Your task to perform on an android device: open app "Upside-Cash back on gas & food" (install if not already installed) Image 0: 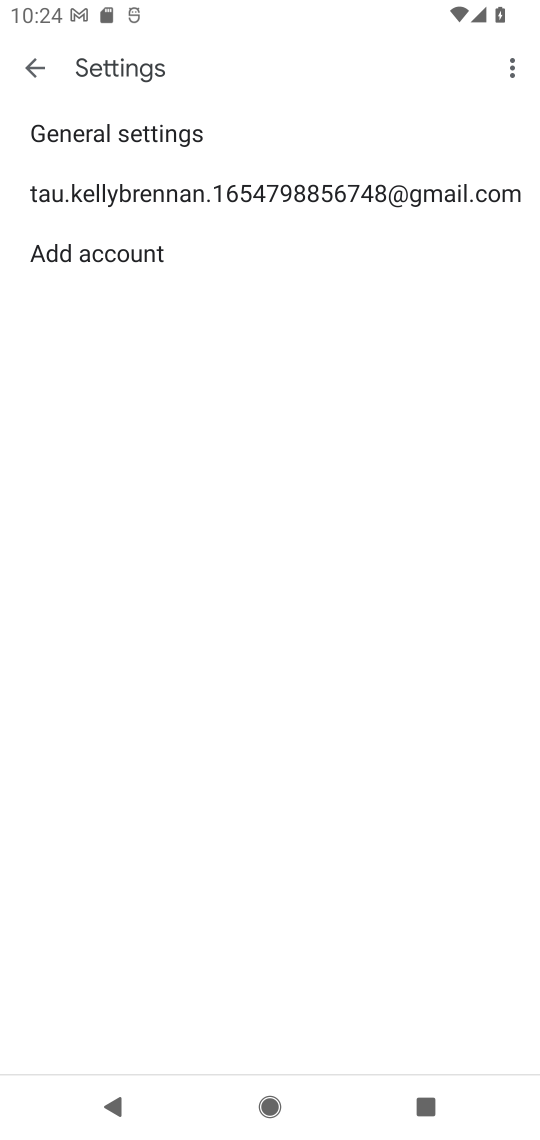
Step 0: press home button
Your task to perform on an android device: open app "Upside-Cash back on gas & food" (install if not already installed) Image 1: 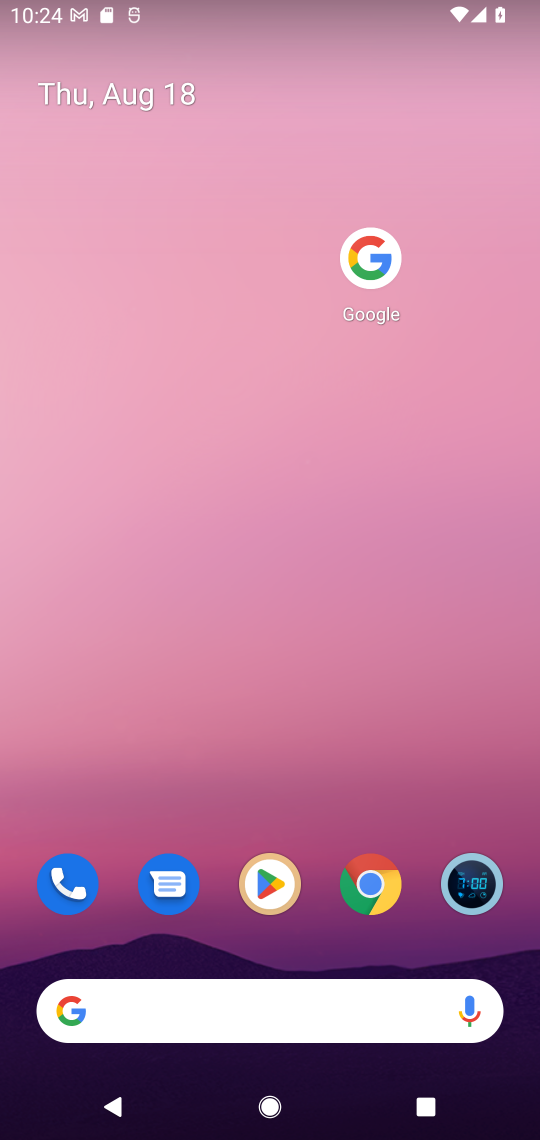
Step 1: click (278, 903)
Your task to perform on an android device: open app "Upside-Cash back on gas & food" (install if not already installed) Image 2: 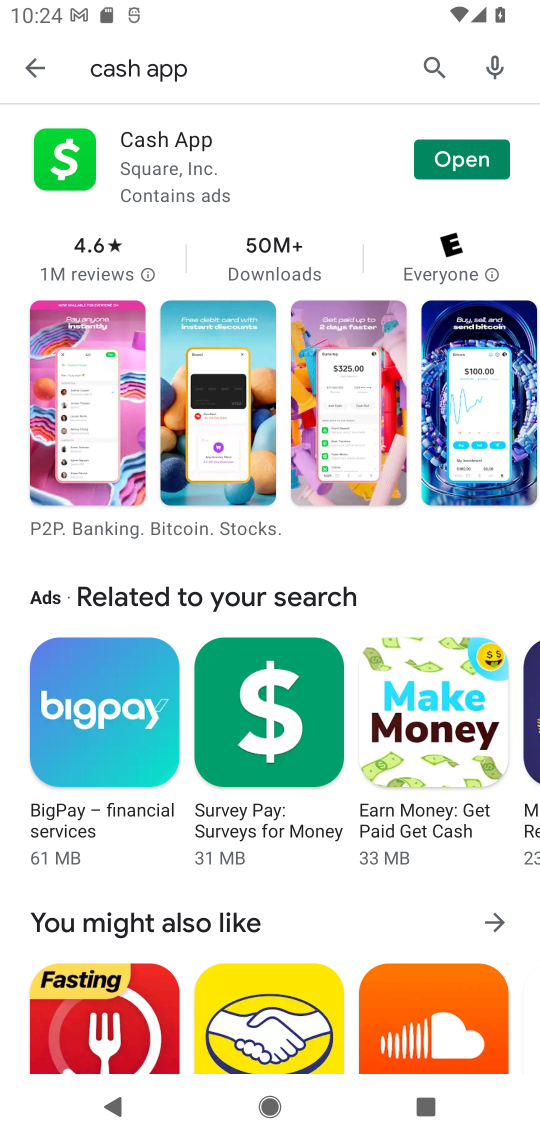
Step 2: click (416, 63)
Your task to perform on an android device: open app "Upside-Cash back on gas & food" (install if not already installed) Image 3: 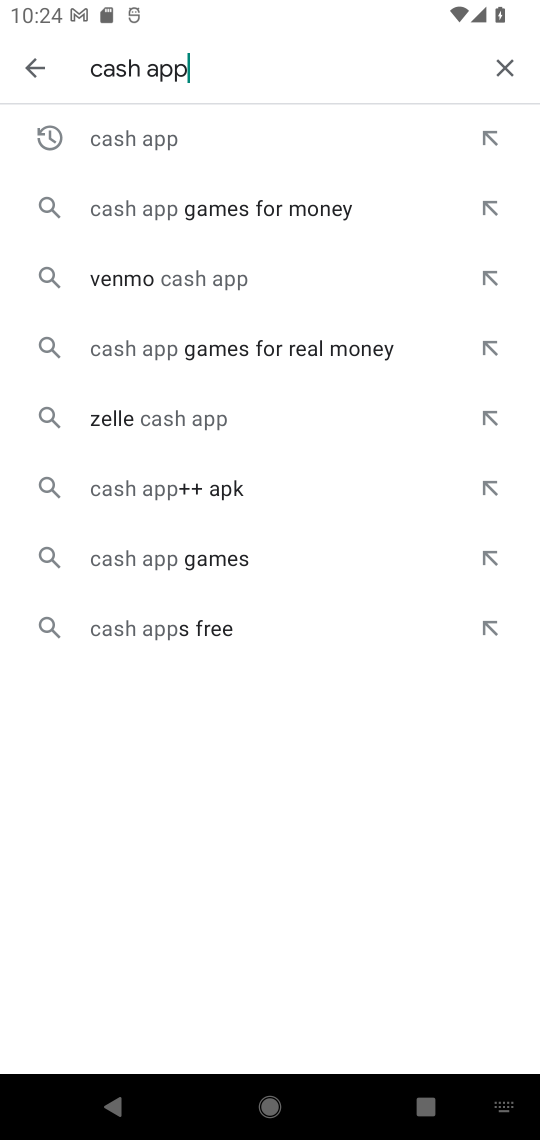
Step 3: click (508, 62)
Your task to perform on an android device: open app "Upside-Cash back on gas & food" (install if not already installed) Image 4: 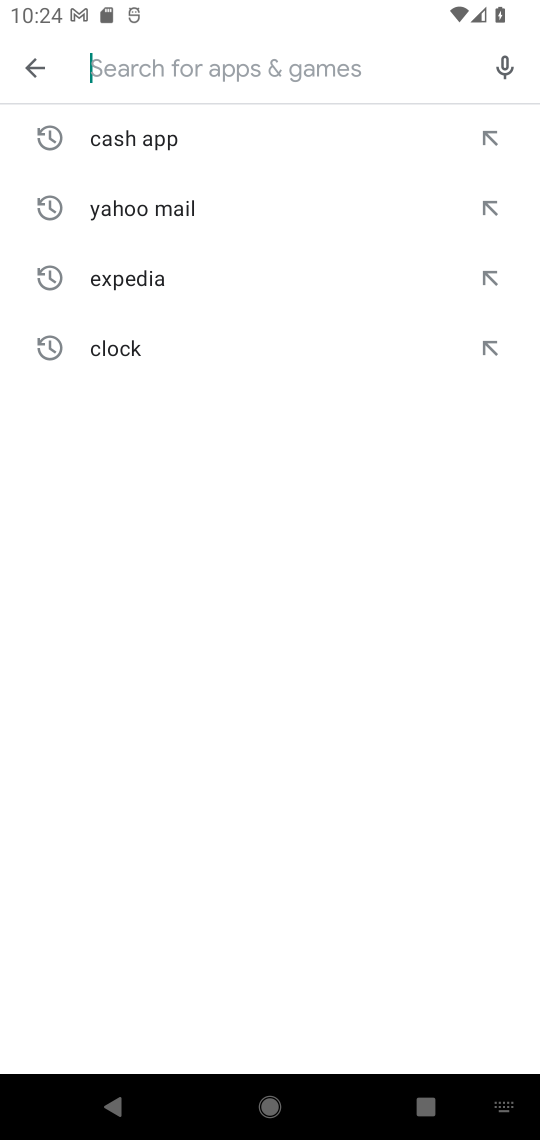
Step 4: type "upside"
Your task to perform on an android device: open app "Upside-Cash back on gas & food" (install if not already installed) Image 5: 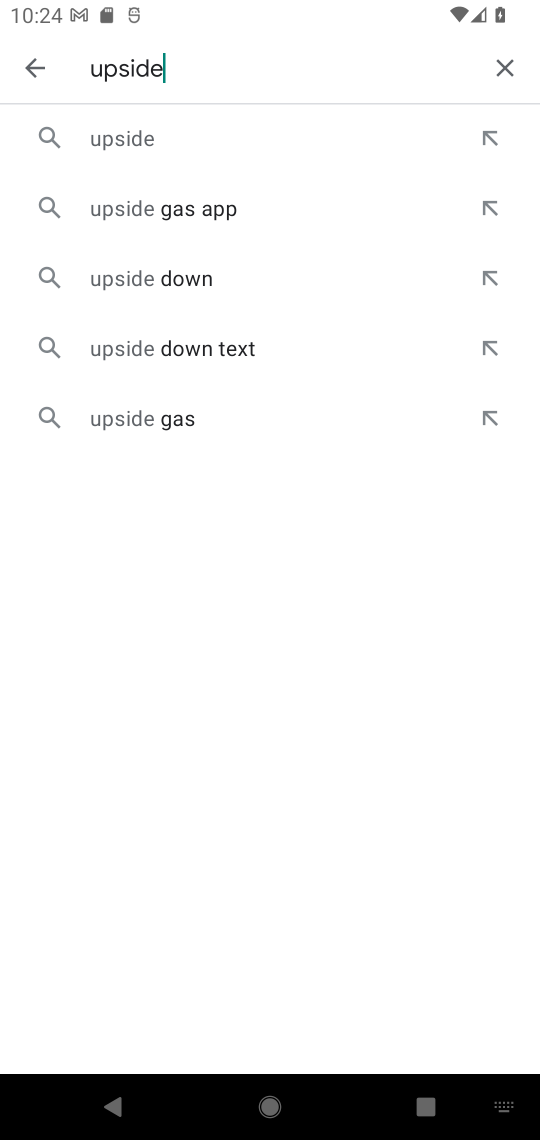
Step 5: click (214, 142)
Your task to perform on an android device: open app "Upside-Cash back on gas & food" (install if not already installed) Image 6: 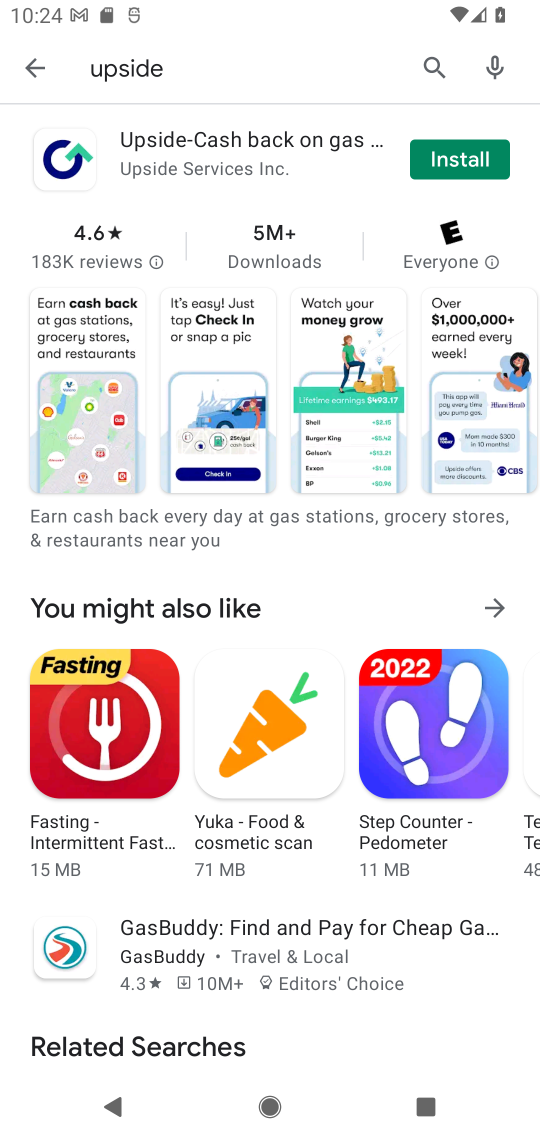
Step 6: click (442, 165)
Your task to perform on an android device: open app "Upside-Cash back on gas & food" (install if not already installed) Image 7: 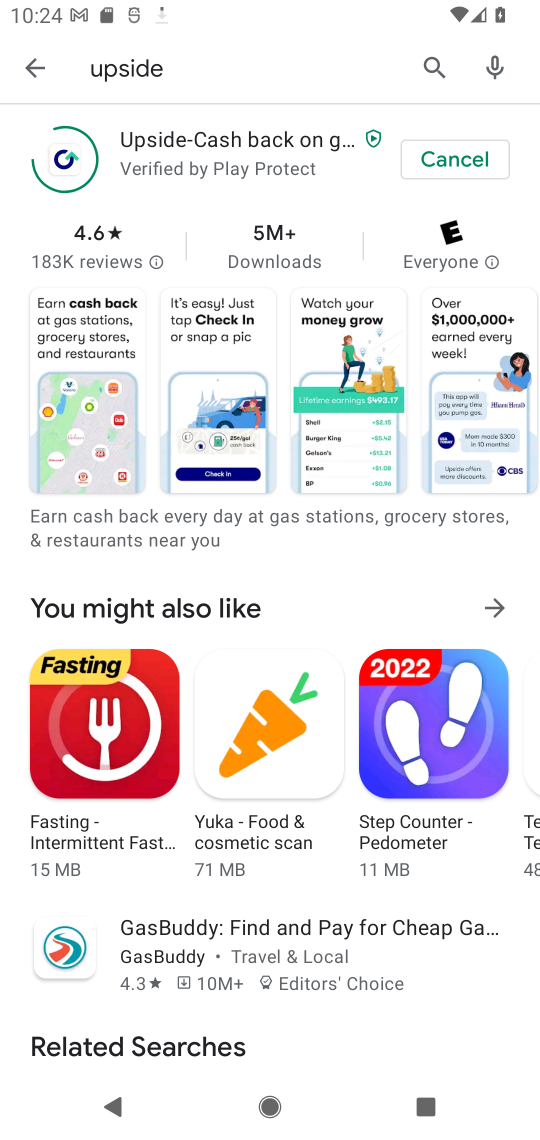
Step 7: task complete